Your task to perform on an android device: change notification settings in the gmail app Image 0: 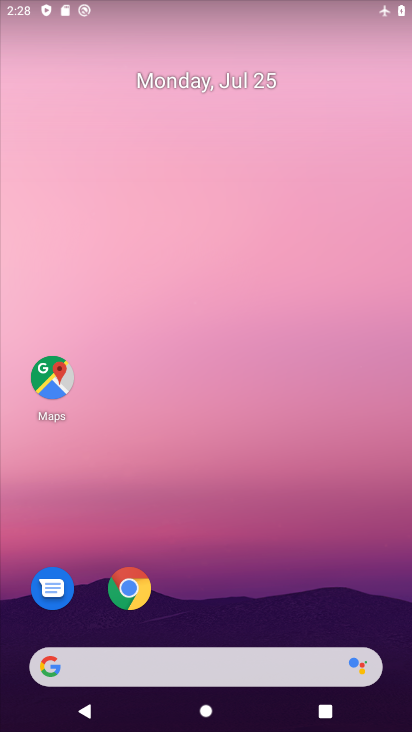
Step 0: drag from (289, 575) to (286, 66)
Your task to perform on an android device: change notification settings in the gmail app Image 1: 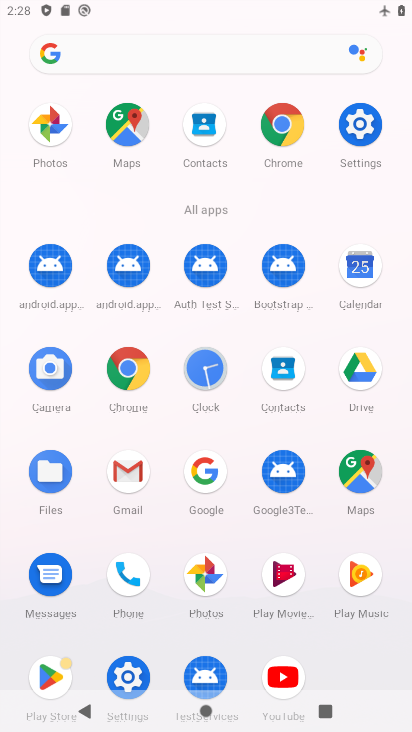
Step 1: click (141, 476)
Your task to perform on an android device: change notification settings in the gmail app Image 2: 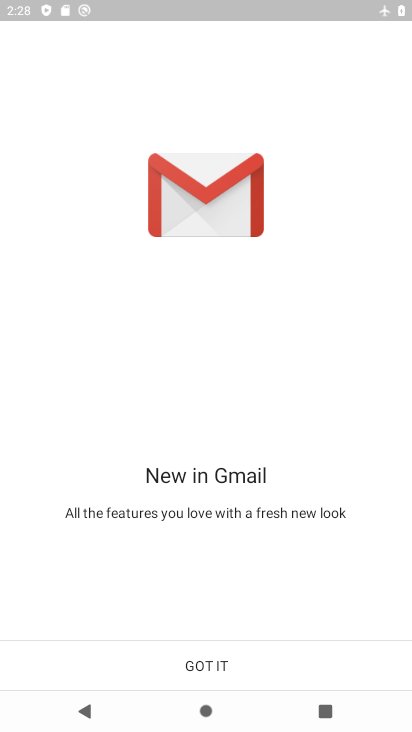
Step 2: click (244, 662)
Your task to perform on an android device: change notification settings in the gmail app Image 3: 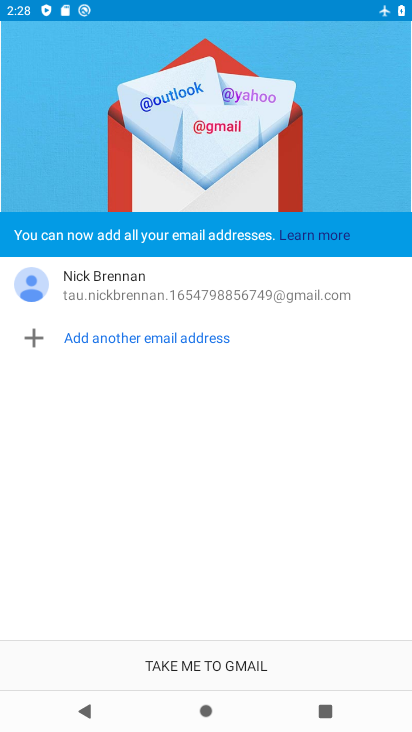
Step 3: click (244, 653)
Your task to perform on an android device: change notification settings in the gmail app Image 4: 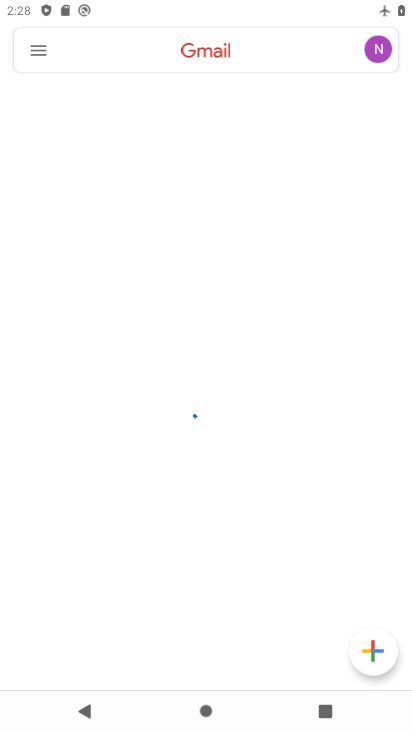
Step 4: click (41, 55)
Your task to perform on an android device: change notification settings in the gmail app Image 5: 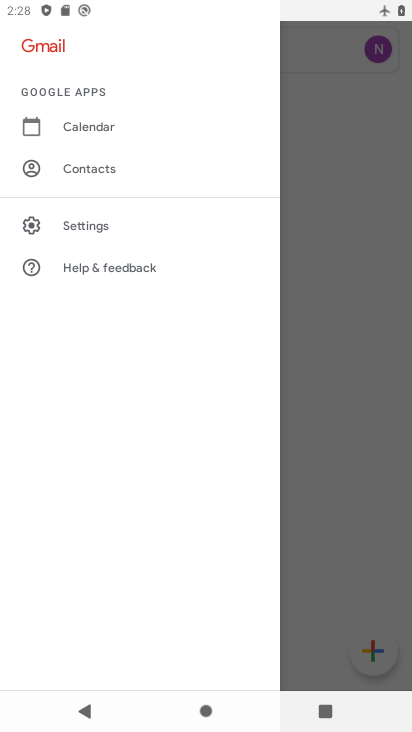
Step 5: click (101, 227)
Your task to perform on an android device: change notification settings in the gmail app Image 6: 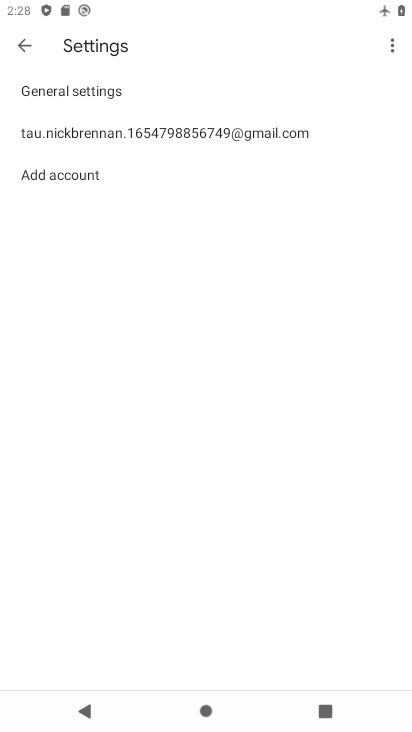
Step 6: click (148, 135)
Your task to perform on an android device: change notification settings in the gmail app Image 7: 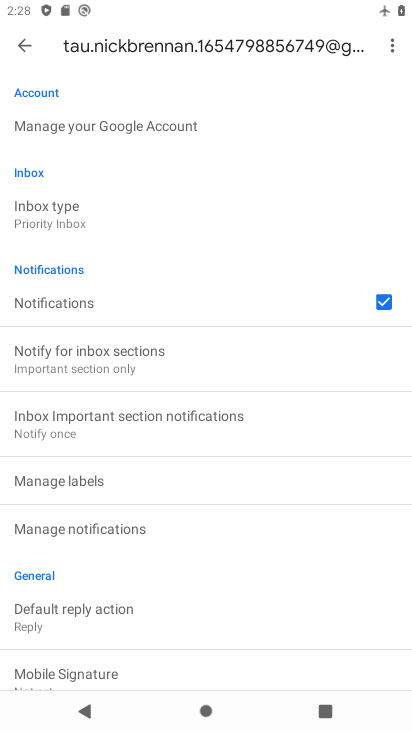
Step 7: click (107, 519)
Your task to perform on an android device: change notification settings in the gmail app Image 8: 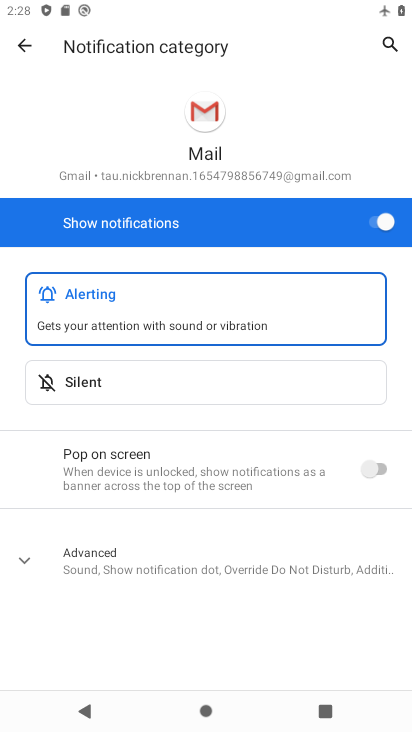
Step 8: click (385, 221)
Your task to perform on an android device: change notification settings in the gmail app Image 9: 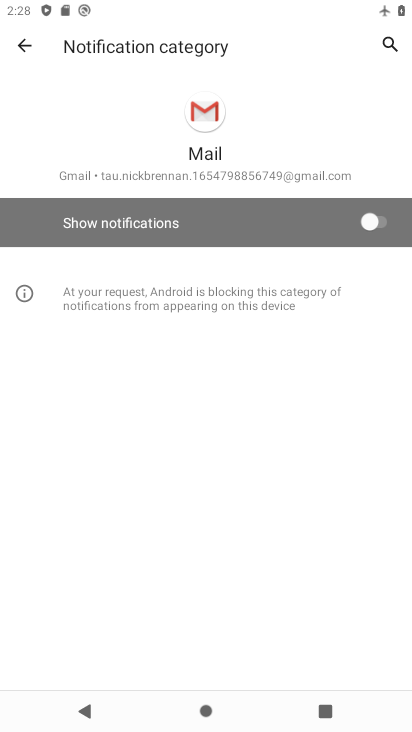
Step 9: task complete